Your task to perform on an android device: refresh tabs in the chrome app Image 0: 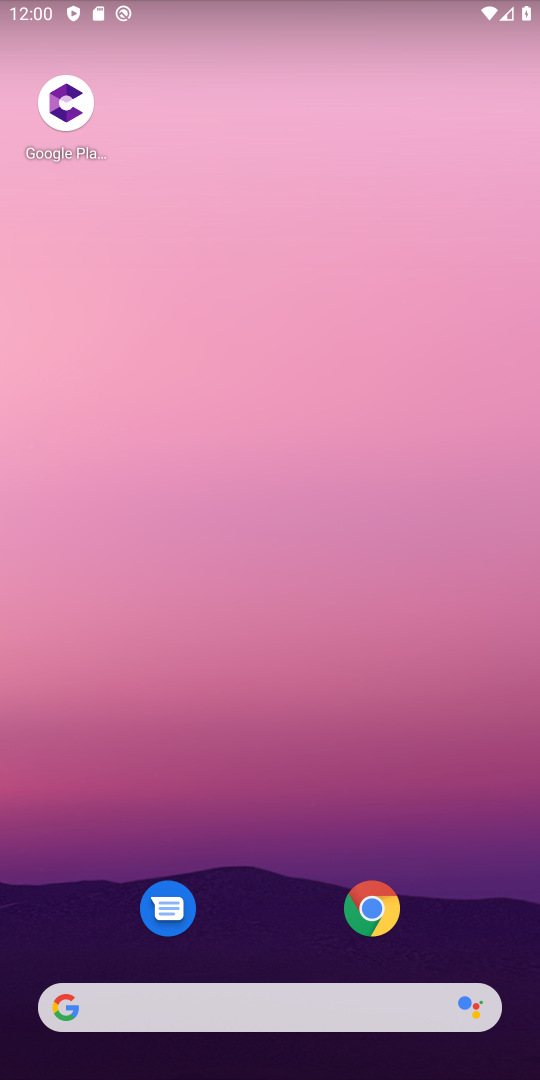
Step 0: click (372, 903)
Your task to perform on an android device: refresh tabs in the chrome app Image 1: 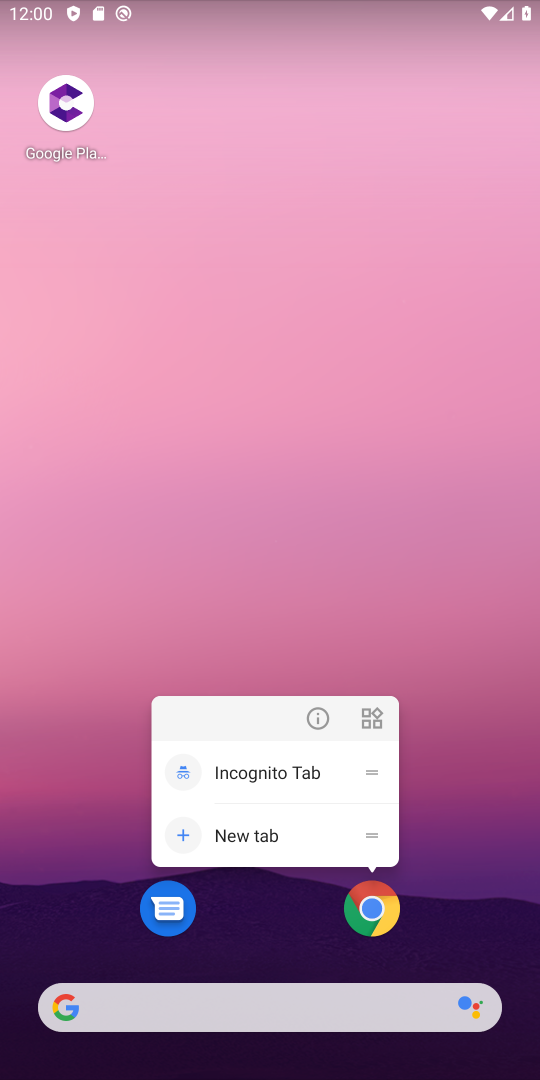
Step 1: click (364, 918)
Your task to perform on an android device: refresh tabs in the chrome app Image 2: 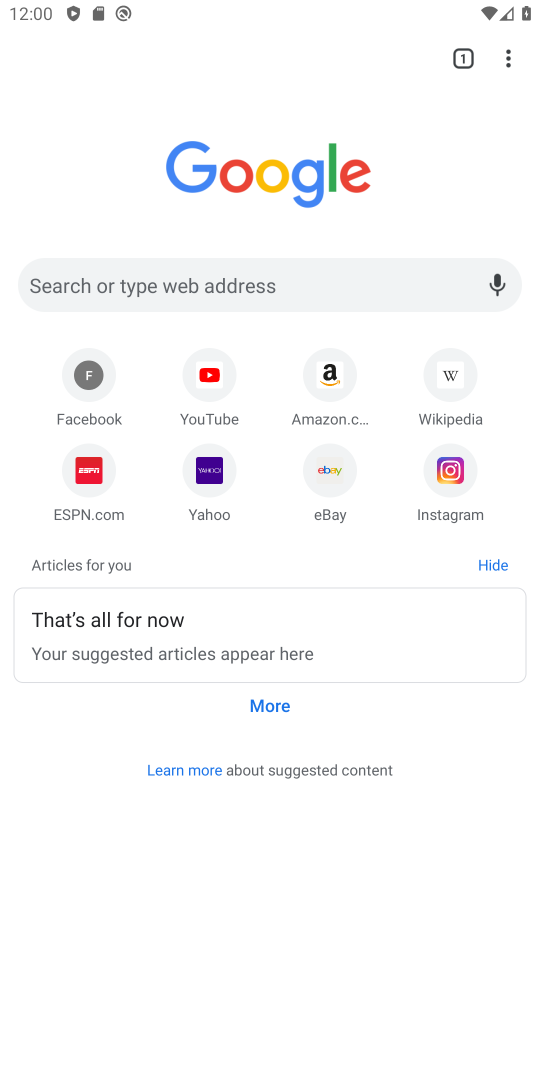
Step 2: click (512, 66)
Your task to perform on an android device: refresh tabs in the chrome app Image 3: 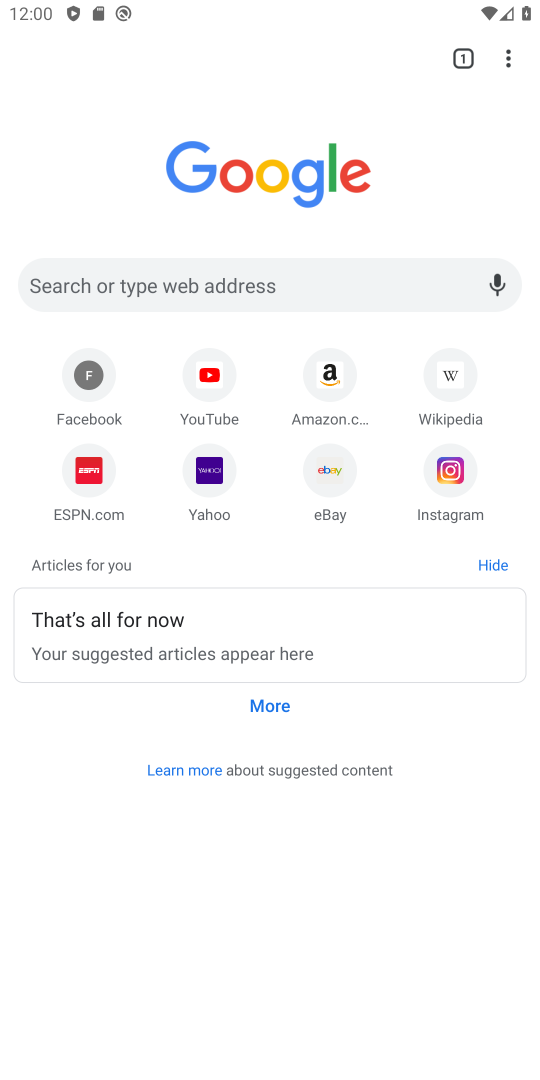
Step 3: click (512, 66)
Your task to perform on an android device: refresh tabs in the chrome app Image 4: 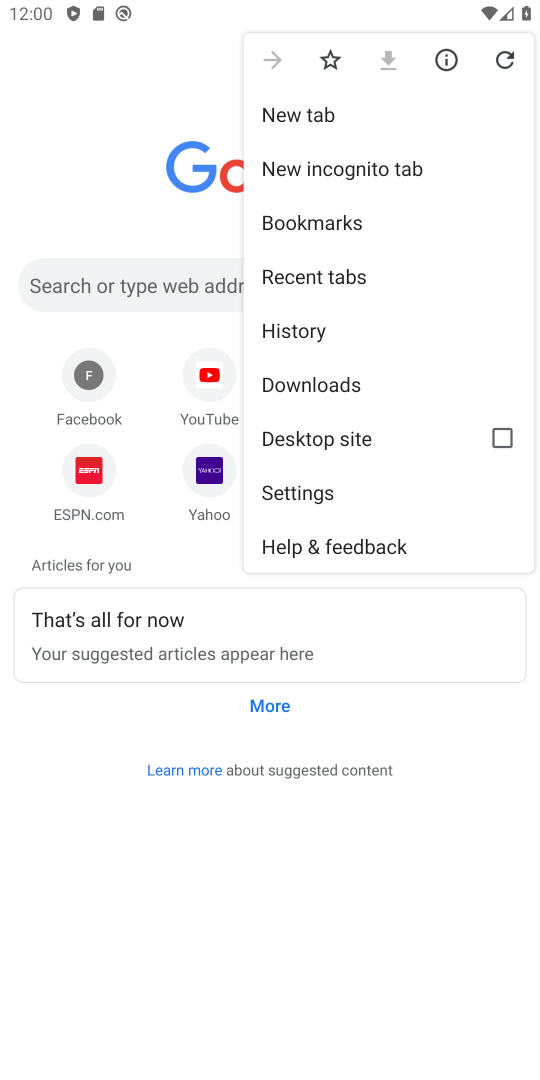
Step 4: click (502, 64)
Your task to perform on an android device: refresh tabs in the chrome app Image 5: 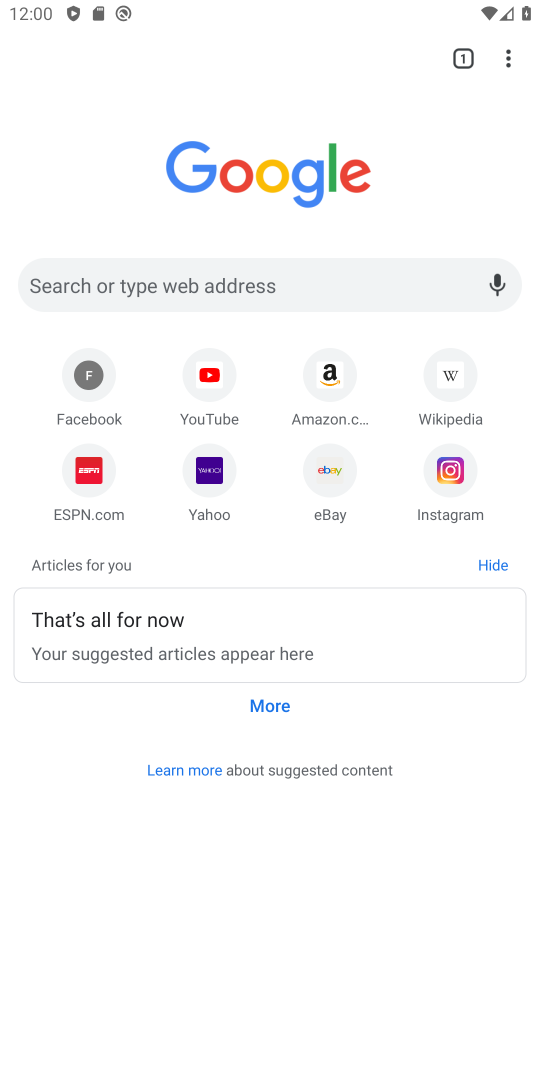
Step 5: click (507, 52)
Your task to perform on an android device: refresh tabs in the chrome app Image 6: 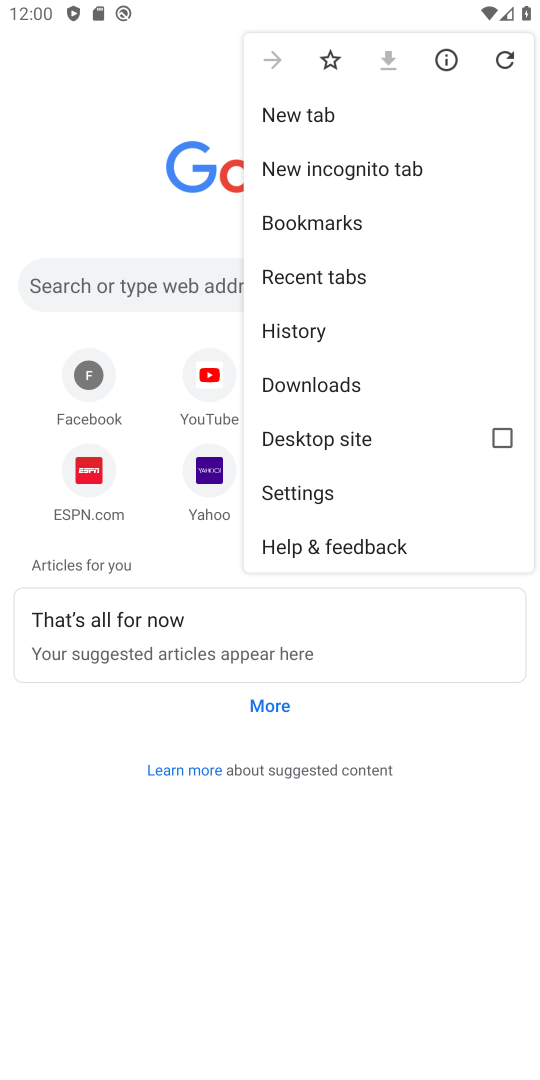
Step 6: click (500, 67)
Your task to perform on an android device: refresh tabs in the chrome app Image 7: 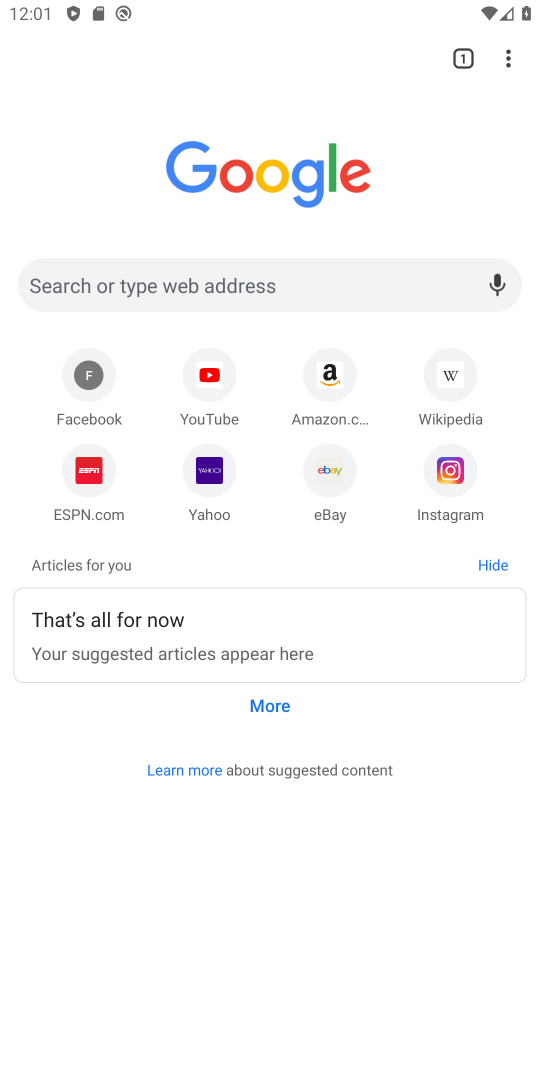
Step 7: task complete